Your task to perform on an android device: toggle pop-ups in chrome Image 0: 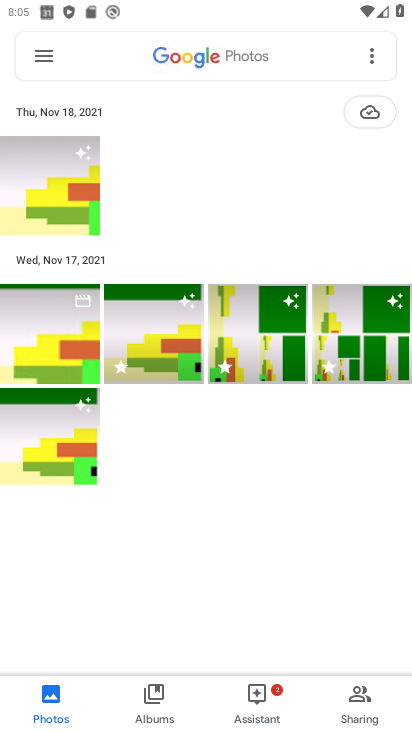
Step 0: press home button
Your task to perform on an android device: toggle pop-ups in chrome Image 1: 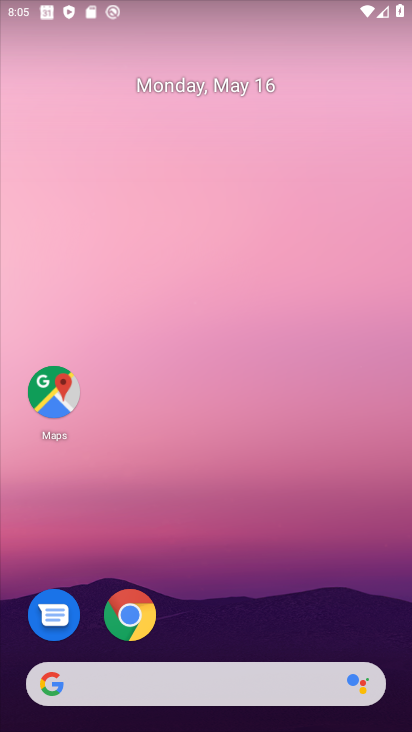
Step 1: drag from (269, 550) to (408, 19)
Your task to perform on an android device: toggle pop-ups in chrome Image 2: 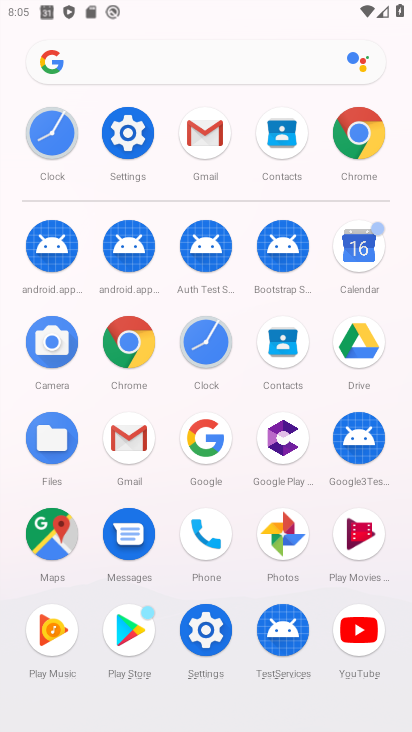
Step 2: click (368, 159)
Your task to perform on an android device: toggle pop-ups in chrome Image 3: 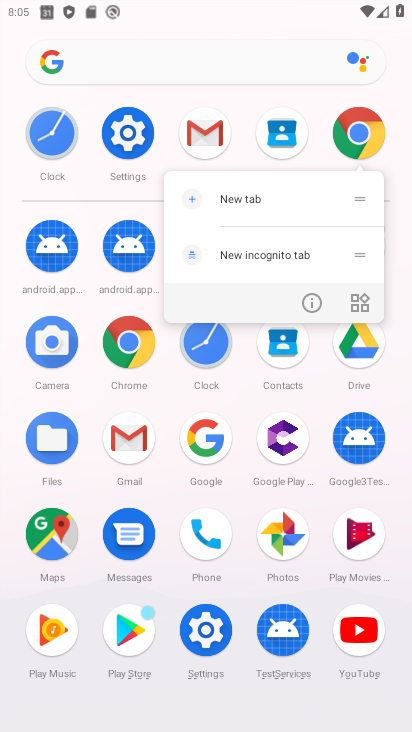
Step 3: click (362, 140)
Your task to perform on an android device: toggle pop-ups in chrome Image 4: 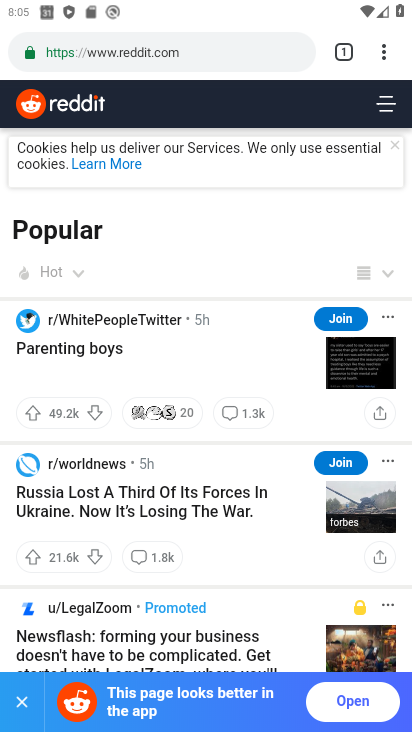
Step 4: click (387, 46)
Your task to perform on an android device: toggle pop-ups in chrome Image 5: 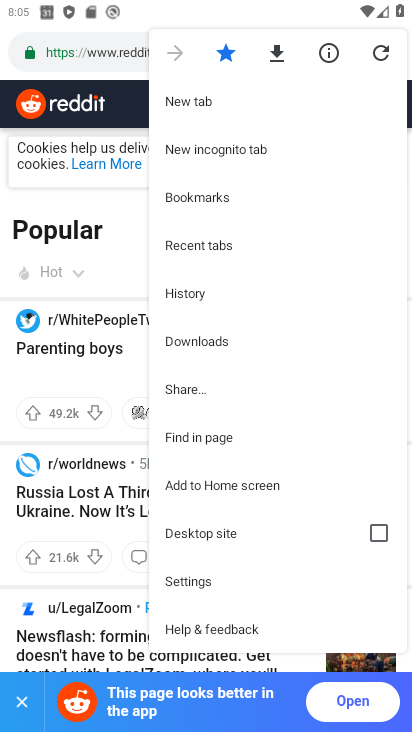
Step 5: drag from (236, 494) to (259, 167)
Your task to perform on an android device: toggle pop-ups in chrome Image 6: 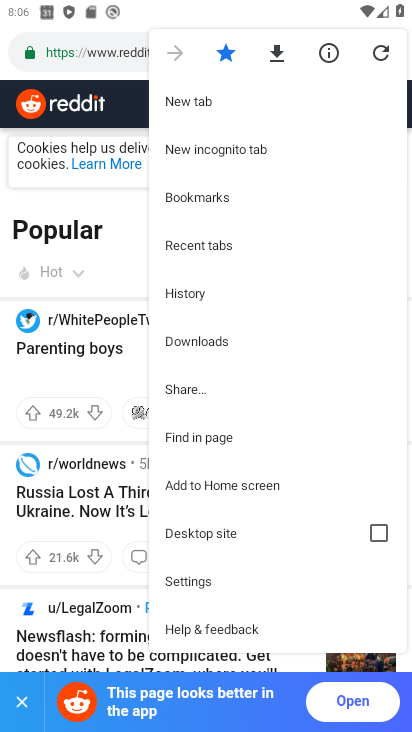
Step 6: click (202, 590)
Your task to perform on an android device: toggle pop-ups in chrome Image 7: 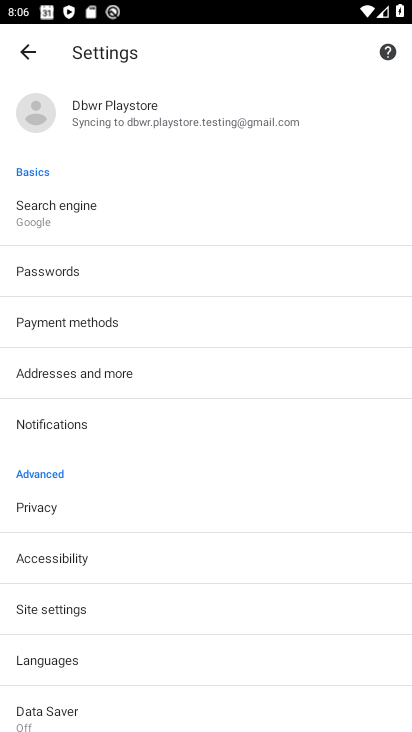
Step 7: drag from (201, 553) to (226, 234)
Your task to perform on an android device: toggle pop-ups in chrome Image 8: 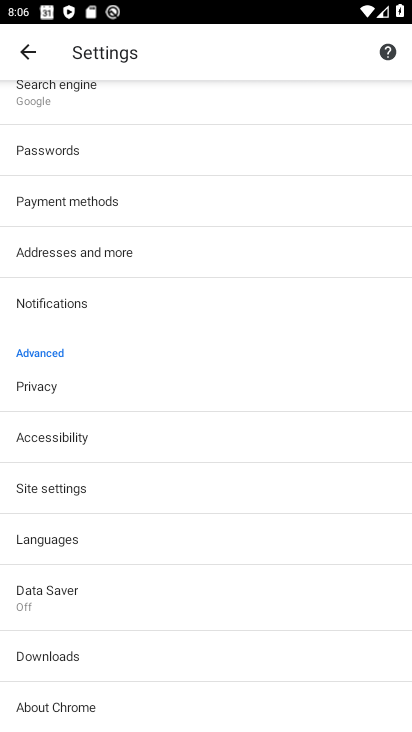
Step 8: drag from (138, 596) to (142, 328)
Your task to perform on an android device: toggle pop-ups in chrome Image 9: 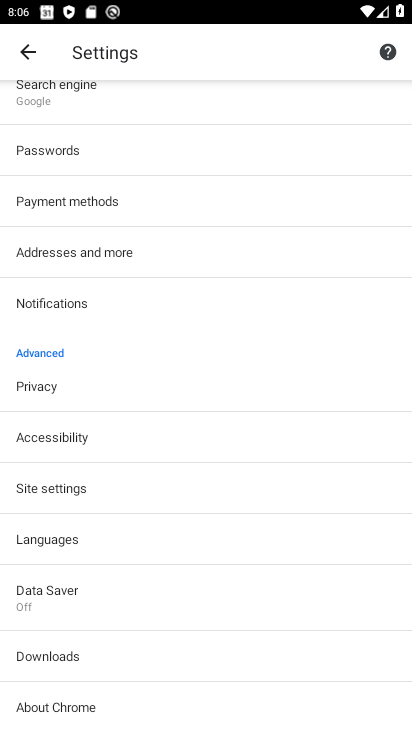
Step 9: click (75, 483)
Your task to perform on an android device: toggle pop-ups in chrome Image 10: 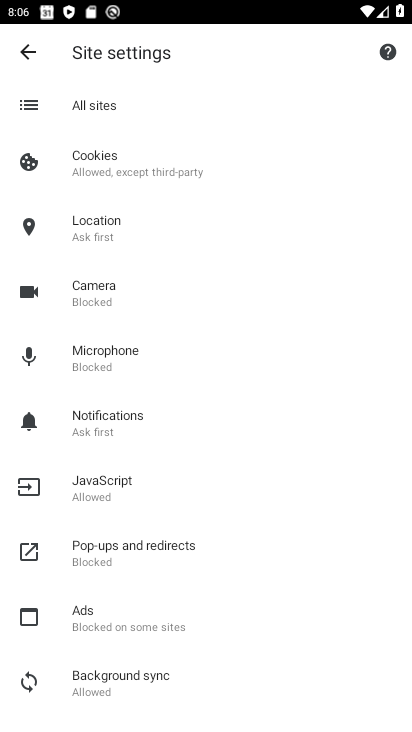
Step 10: drag from (114, 630) to (127, 293)
Your task to perform on an android device: toggle pop-ups in chrome Image 11: 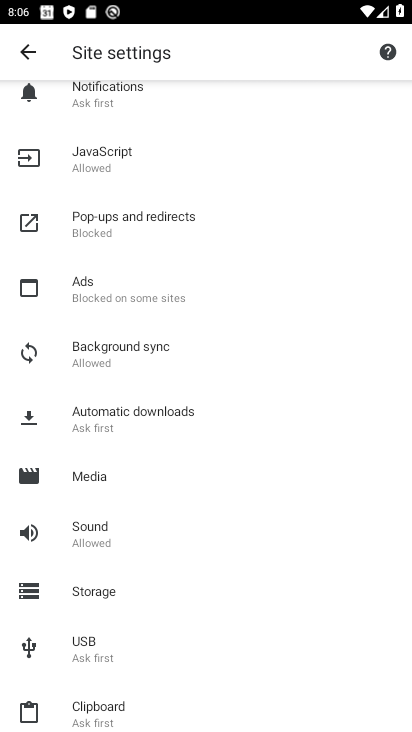
Step 11: click (147, 232)
Your task to perform on an android device: toggle pop-ups in chrome Image 12: 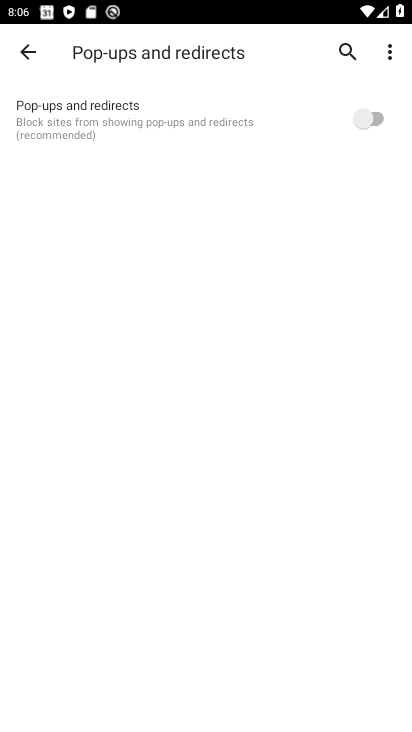
Step 12: click (379, 125)
Your task to perform on an android device: toggle pop-ups in chrome Image 13: 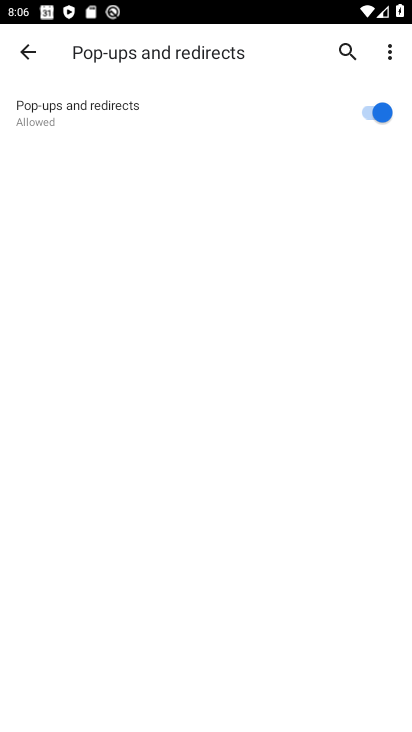
Step 13: task complete